Your task to perform on an android device: View the shopping cart on target. Add "razer huntsman" to the cart on target Image 0: 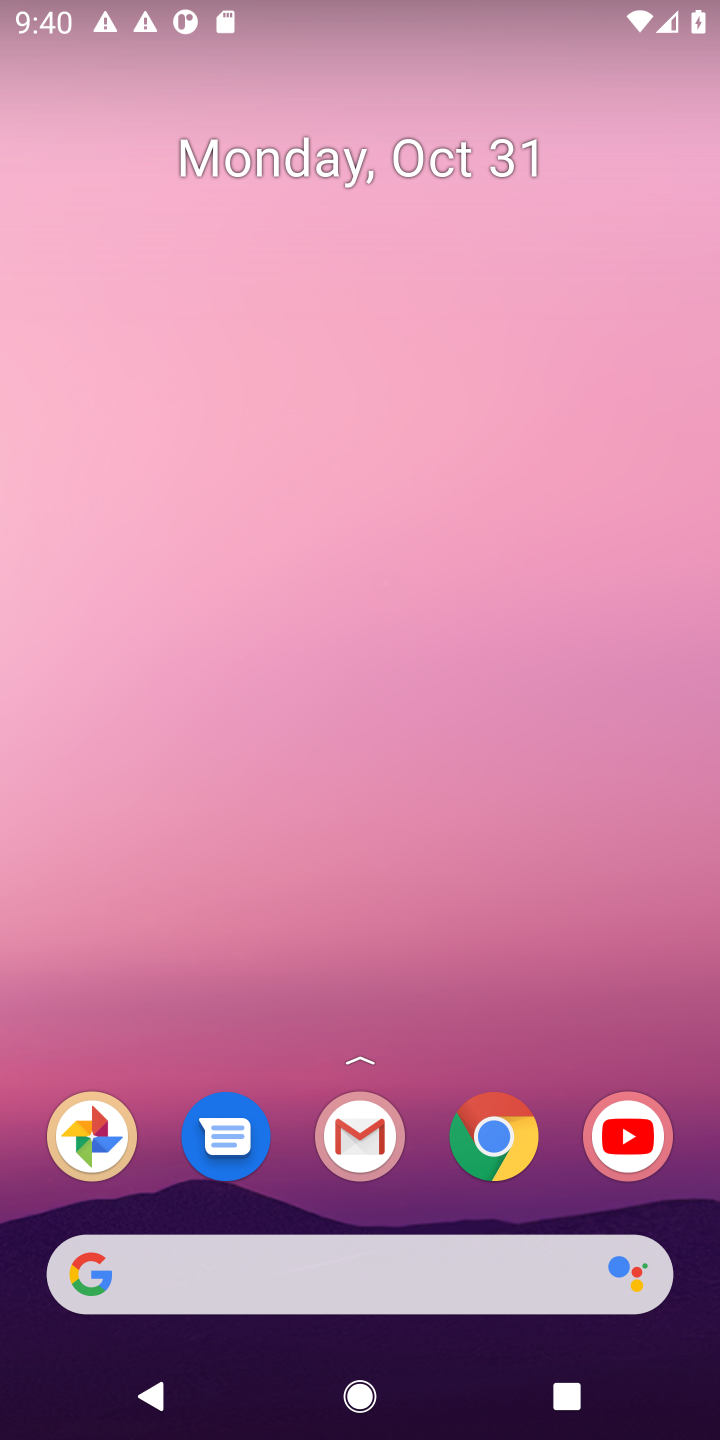
Step 0: press home button
Your task to perform on an android device: View the shopping cart on target. Add "razer huntsman" to the cart on target Image 1: 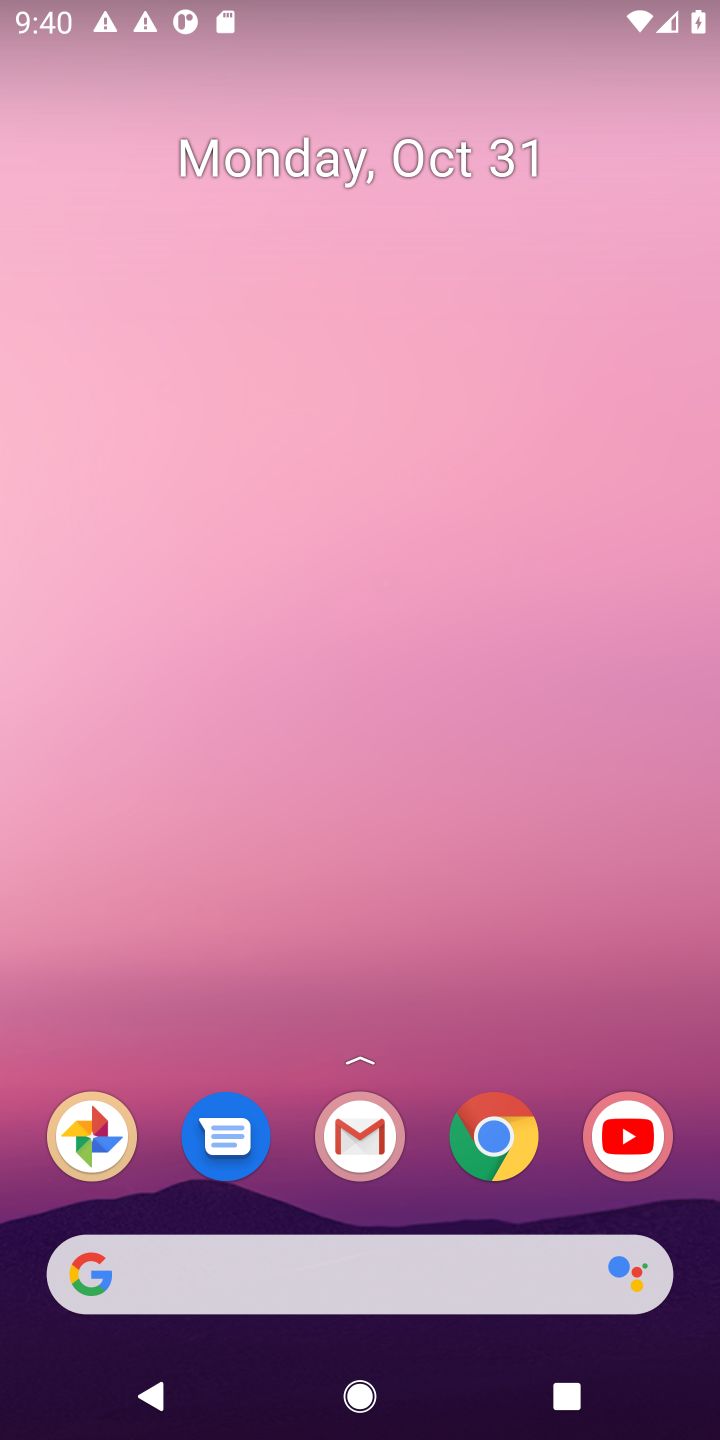
Step 1: click (143, 1268)
Your task to perform on an android device: View the shopping cart on target. Add "razer huntsman" to the cart on target Image 2: 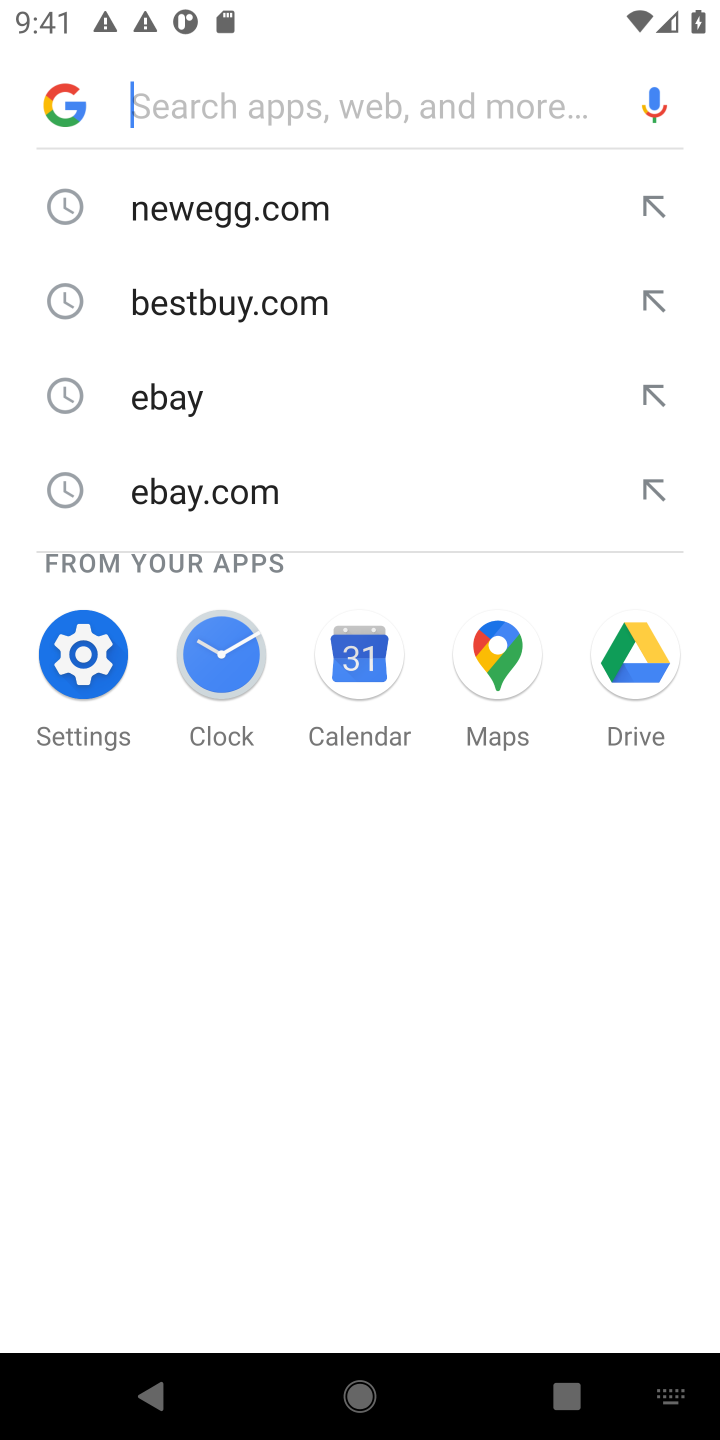
Step 2: type "target"
Your task to perform on an android device: View the shopping cart on target. Add "razer huntsman" to the cart on target Image 3: 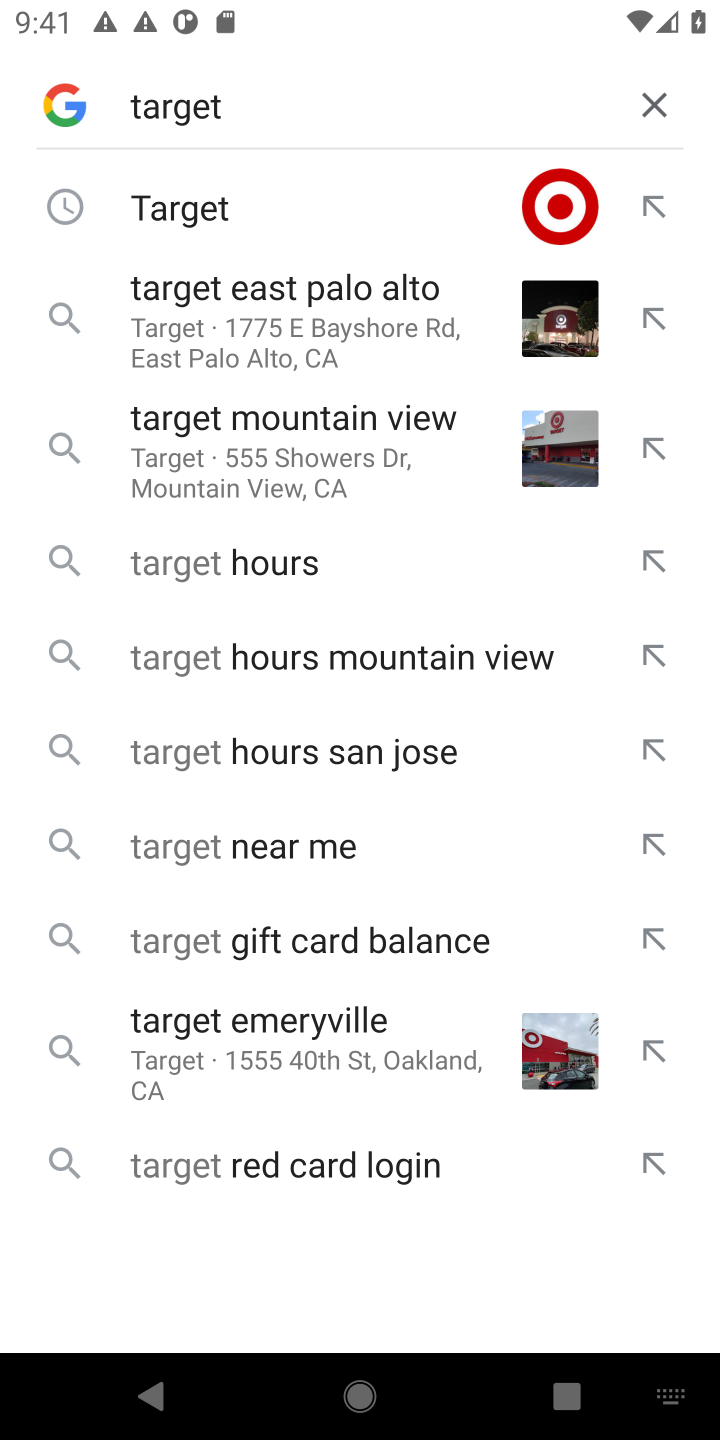
Step 3: press enter
Your task to perform on an android device: View the shopping cart on target. Add "razer huntsman" to the cart on target Image 4: 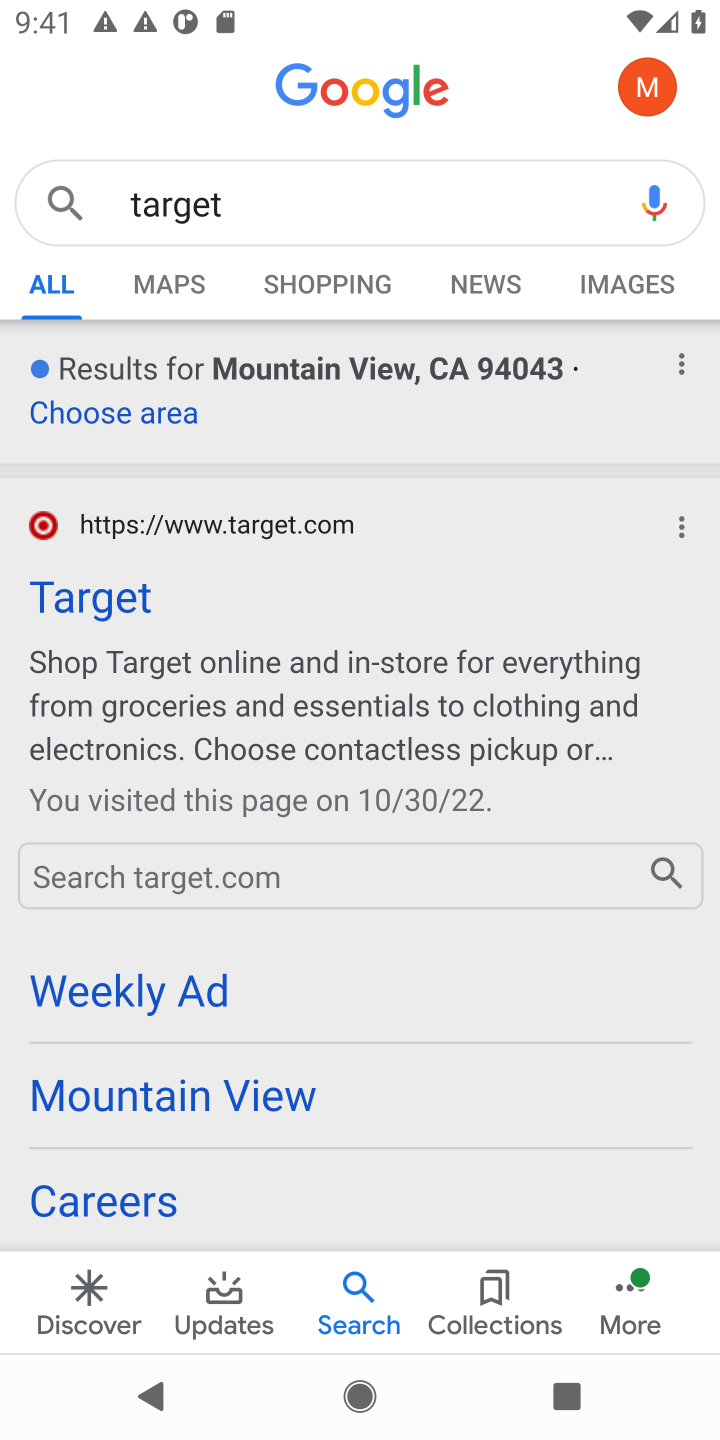
Step 4: click (95, 597)
Your task to perform on an android device: View the shopping cart on target. Add "razer huntsman" to the cart on target Image 5: 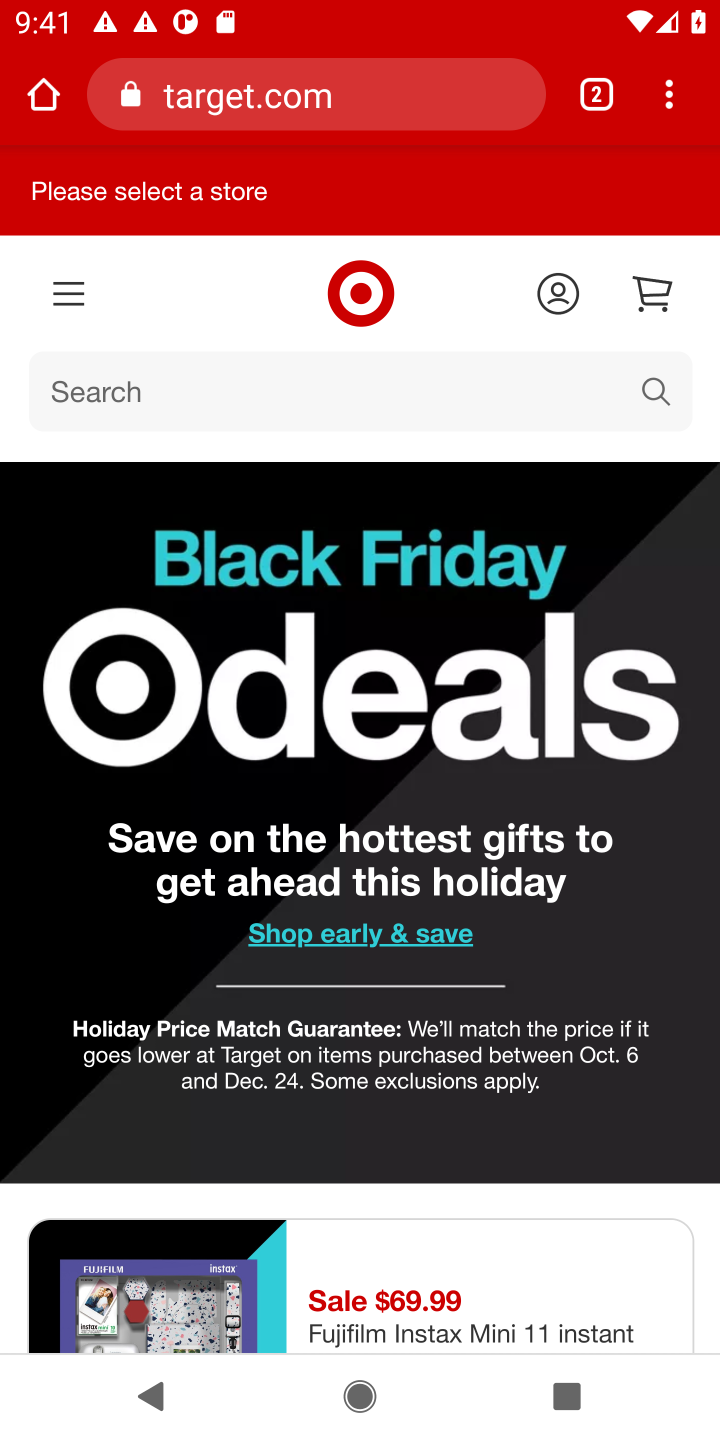
Step 5: click (650, 303)
Your task to perform on an android device: View the shopping cart on target. Add "razer huntsman" to the cart on target Image 6: 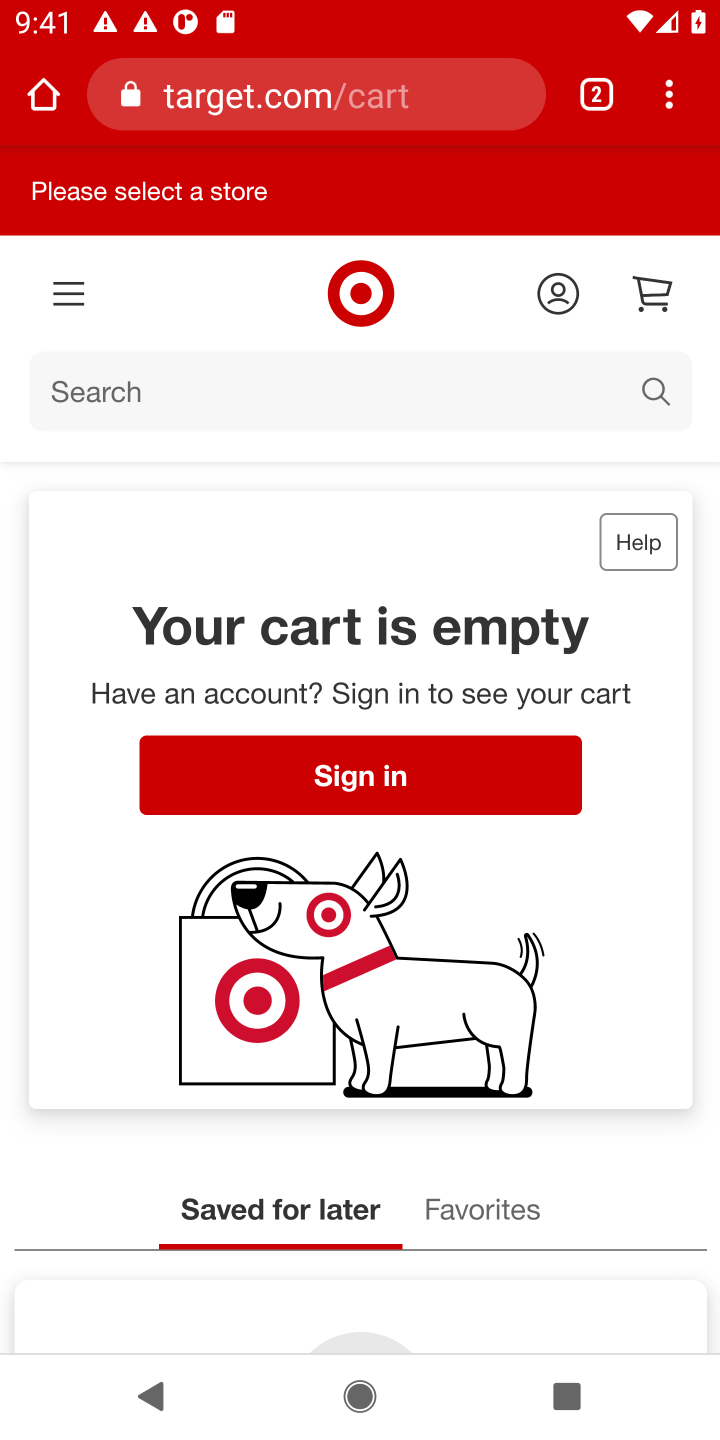
Step 6: click (105, 385)
Your task to perform on an android device: View the shopping cart on target. Add "razer huntsman" to the cart on target Image 7: 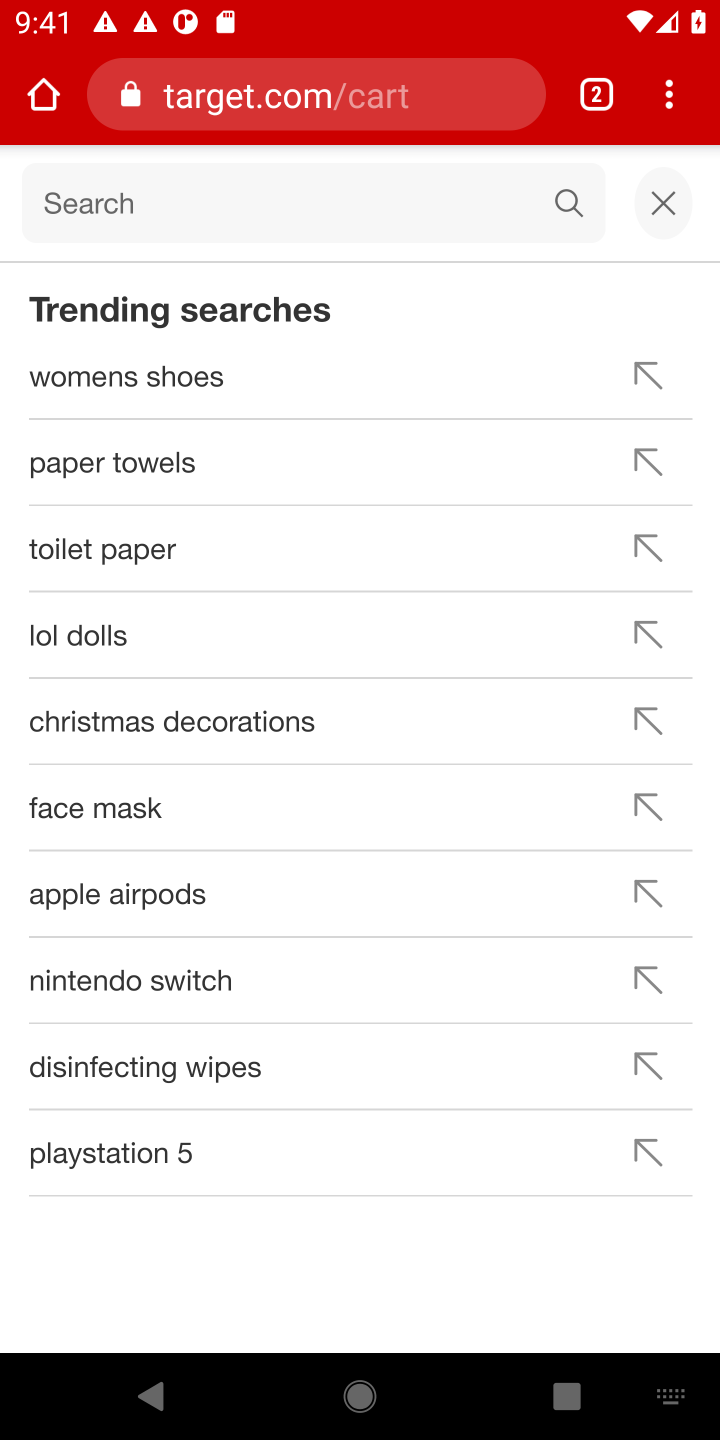
Step 7: type "razer huntsman"
Your task to perform on an android device: View the shopping cart on target. Add "razer huntsman" to the cart on target Image 8: 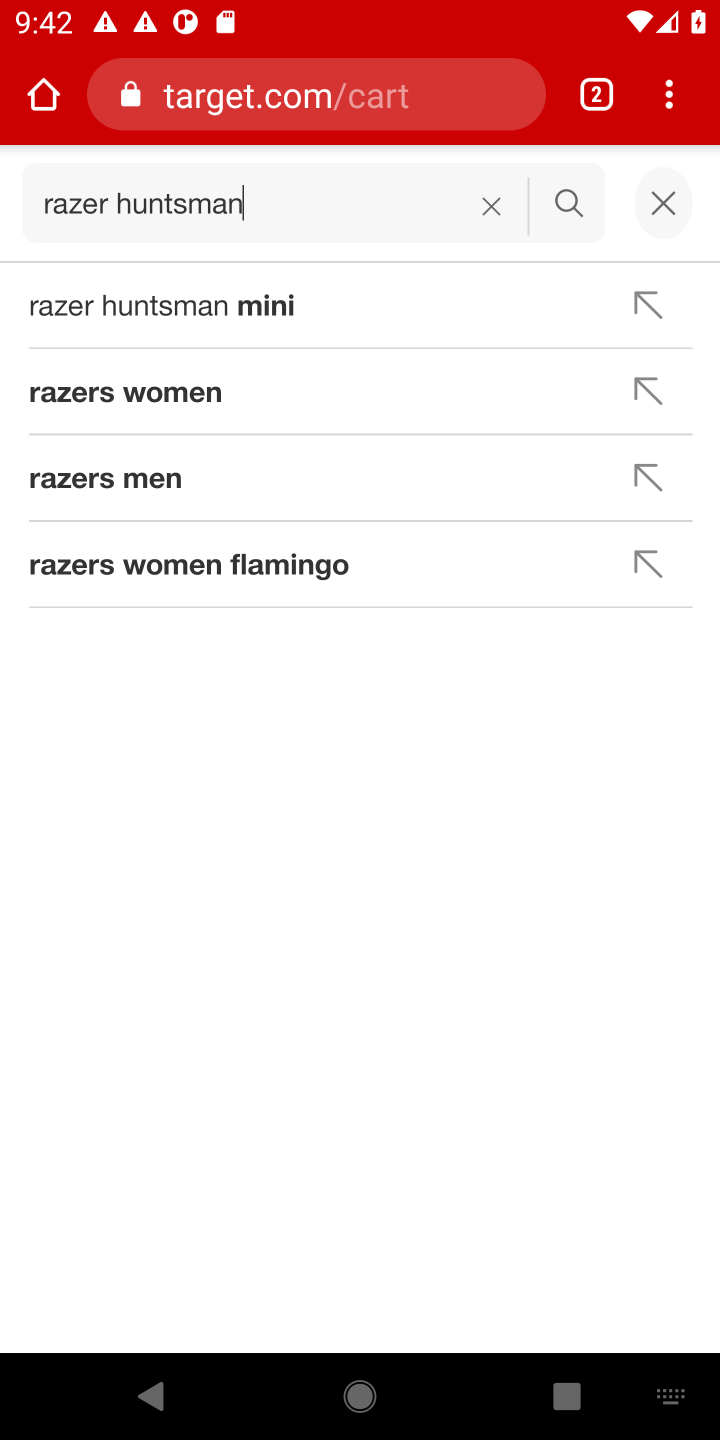
Step 8: click (562, 201)
Your task to perform on an android device: View the shopping cart on target. Add "razer huntsman" to the cart on target Image 9: 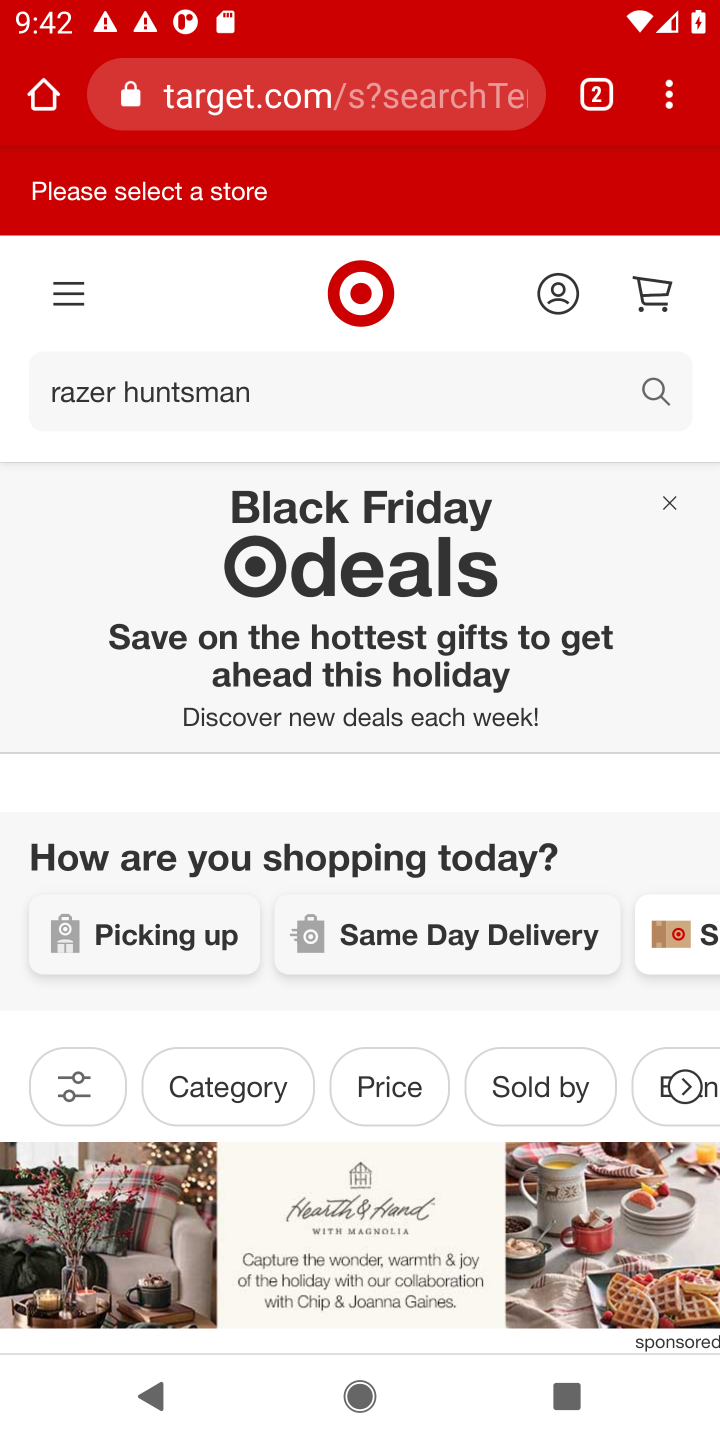
Step 9: drag from (379, 1188) to (428, 580)
Your task to perform on an android device: View the shopping cart on target. Add "razer huntsman" to the cart on target Image 10: 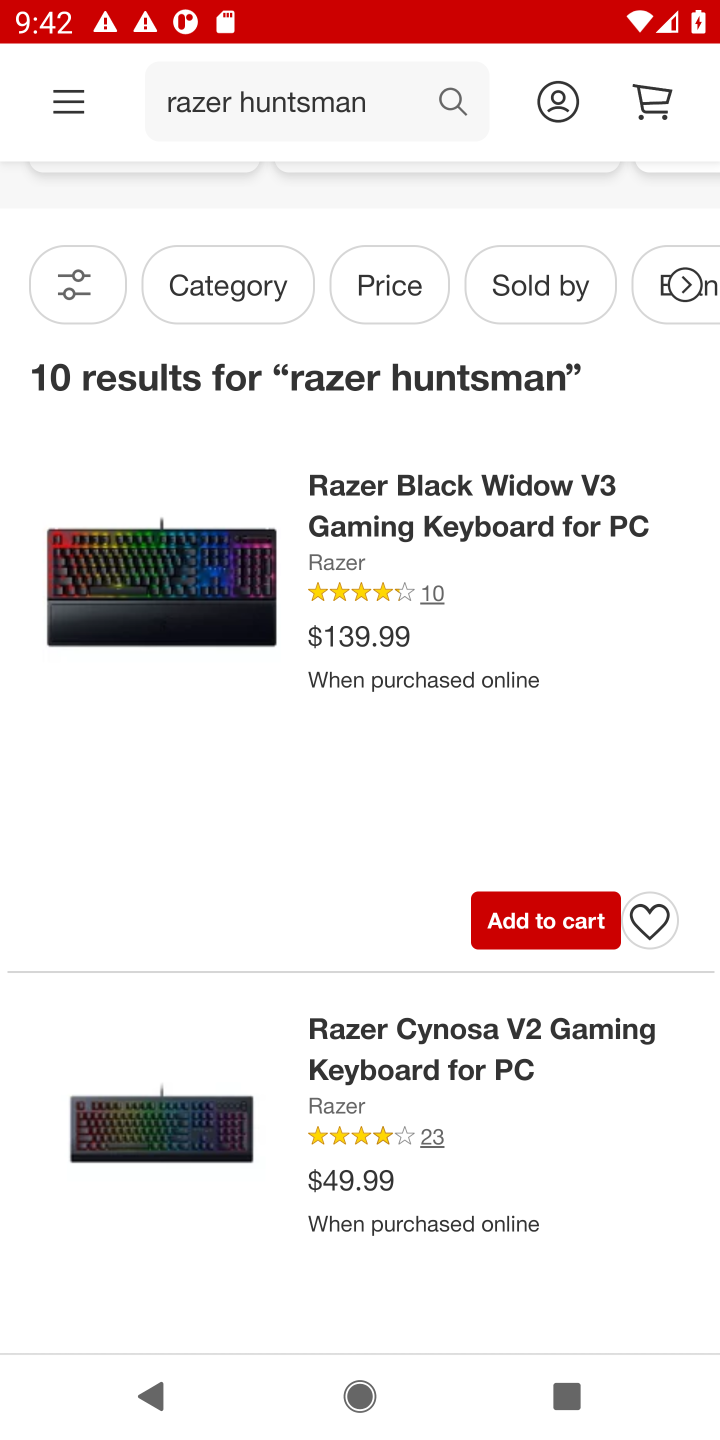
Step 10: drag from (368, 1125) to (396, 627)
Your task to perform on an android device: View the shopping cart on target. Add "razer huntsman" to the cart on target Image 11: 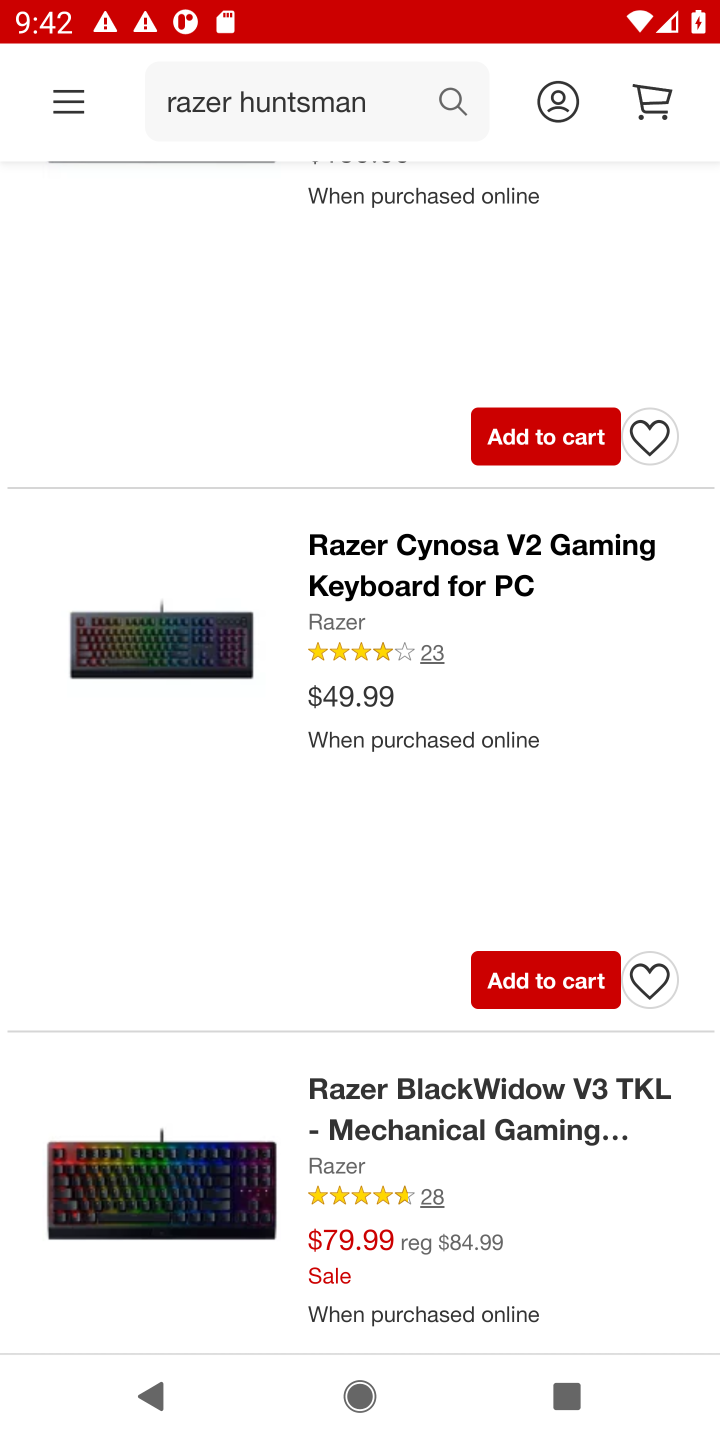
Step 11: drag from (416, 1245) to (436, 606)
Your task to perform on an android device: View the shopping cart on target. Add "razer huntsman" to the cart on target Image 12: 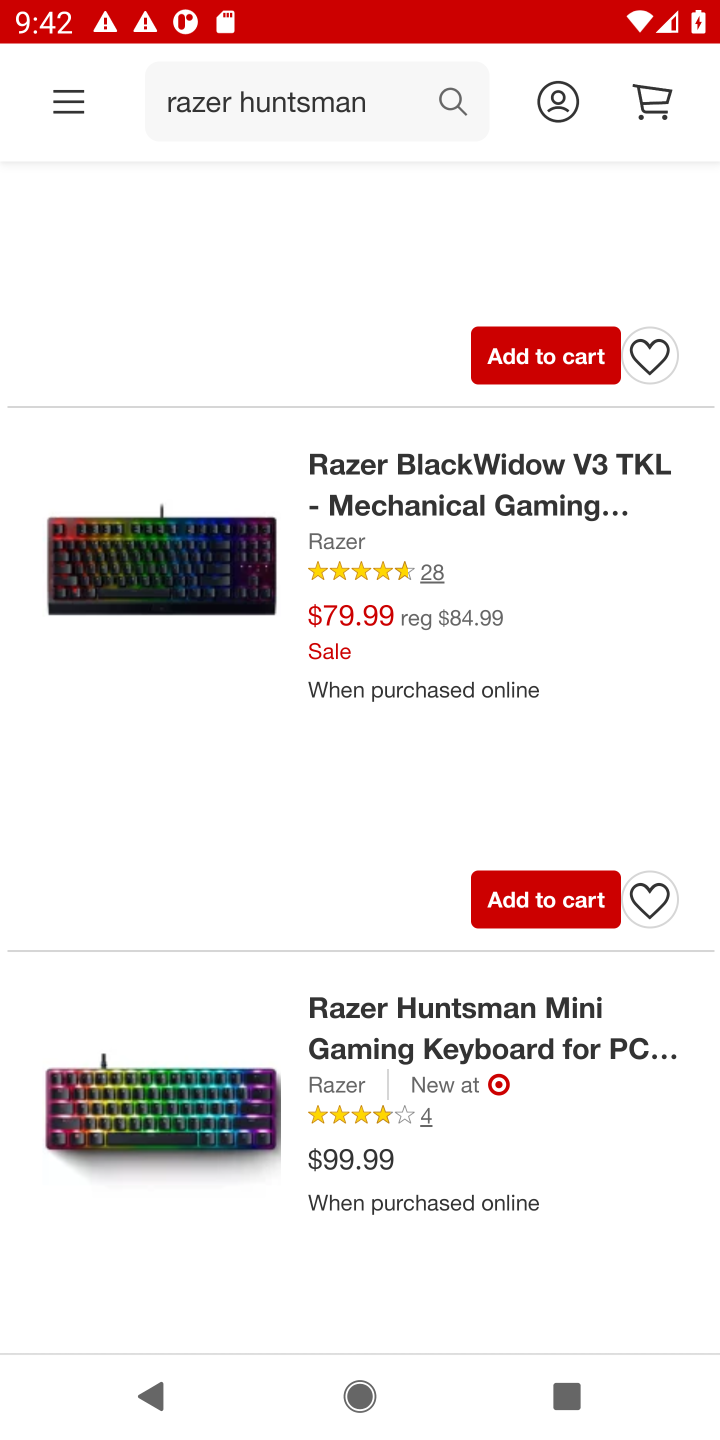
Step 12: click (380, 1021)
Your task to perform on an android device: View the shopping cart on target. Add "razer huntsman" to the cart on target Image 13: 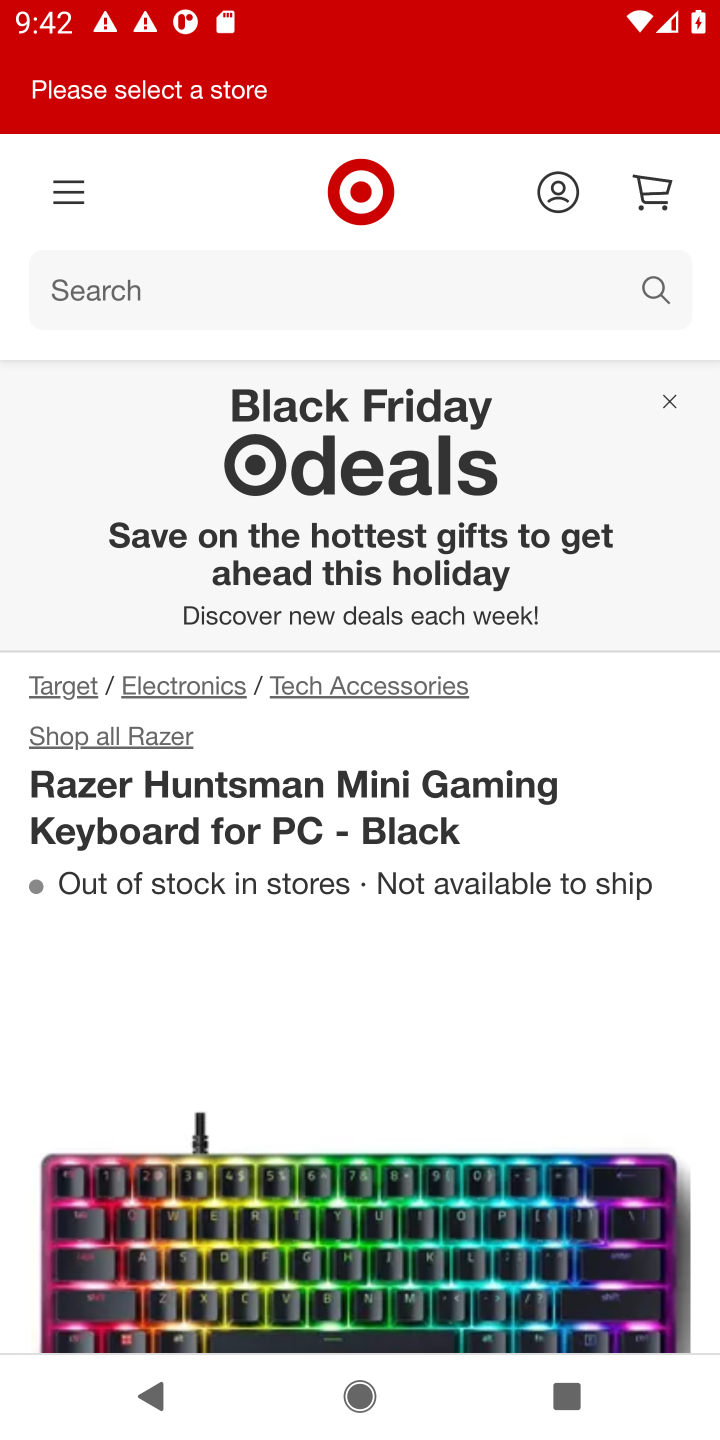
Step 13: drag from (487, 1076) to (450, 573)
Your task to perform on an android device: View the shopping cart on target. Add "razer huntsman" to the cart on target Image 14: 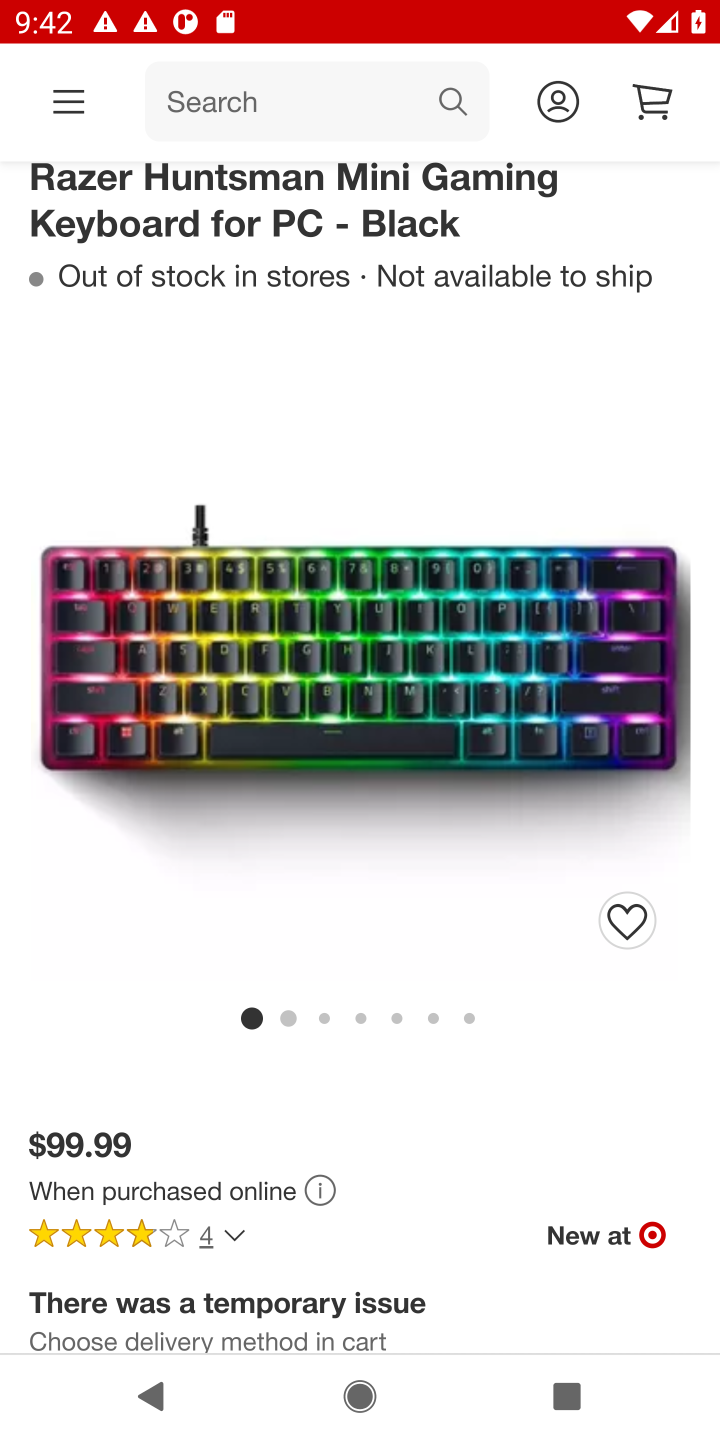
Step 14: drag from (430, 1077) to (432, 601)
Your task to perform on an android device: View the shopping cart on target. Add "razer huntsman" to the cart on target Image 15: 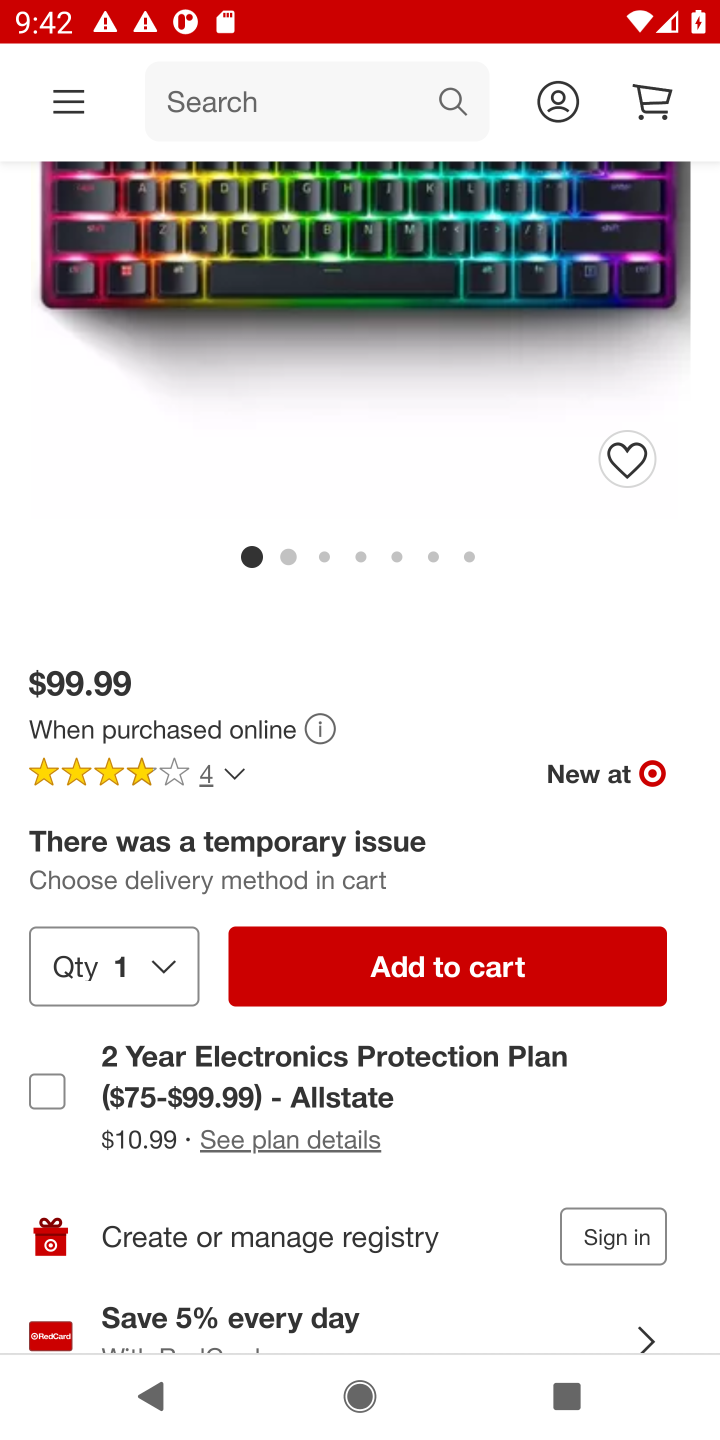
Step 15: click (495, 983)
Your task to perform on an android device: View the shopping cart on target. Add "razer huntsman" to the cart on target Image 16: 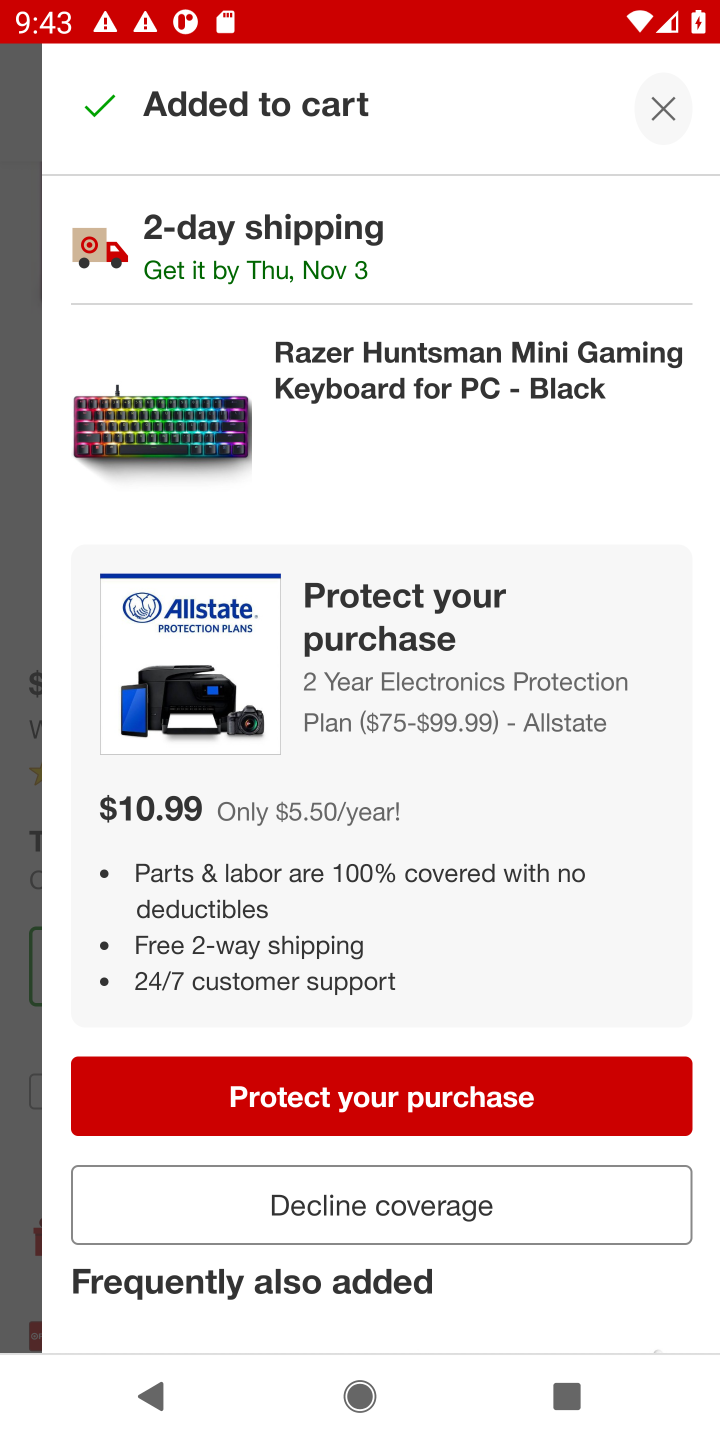
Step 16: task complete